Your task to perform on an android device: change notifications settings Image 0: 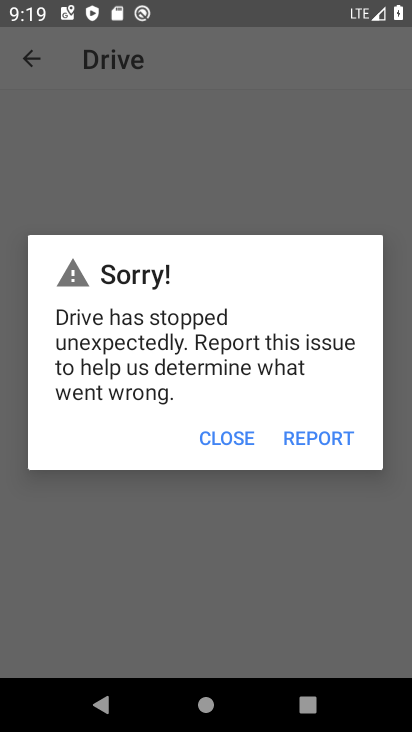
Step 0: press home button
Your task to perform on an android device: change notifications settings Image 1: 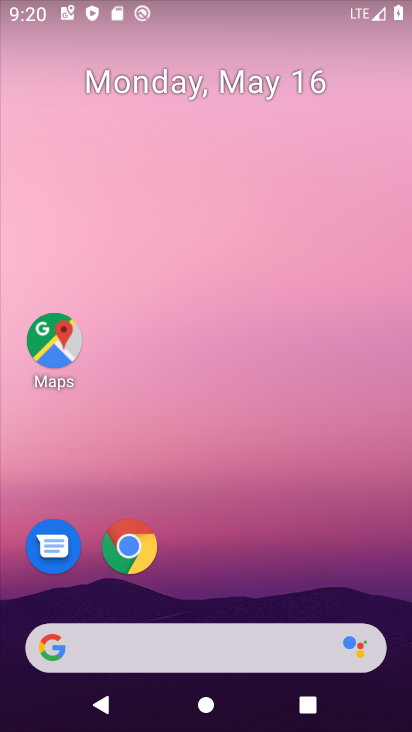
Step 1: drag from (270, 646) to (203, 96)
Your task to perform on an android device: change notifications settings Image 2: 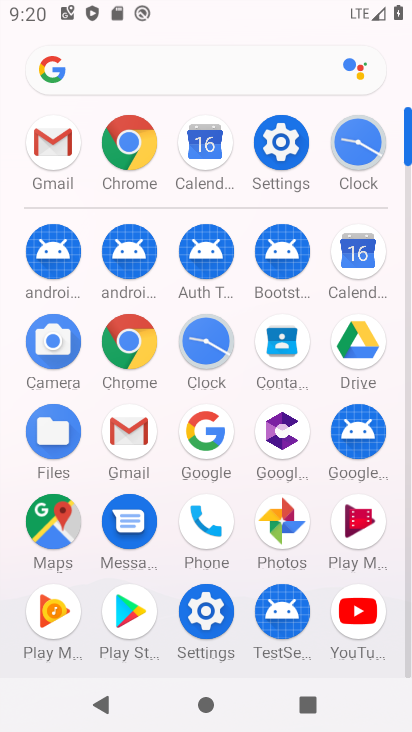
Step 2: click (292, 152)
Your task to perform on an android device: change notifications settings Image 3: 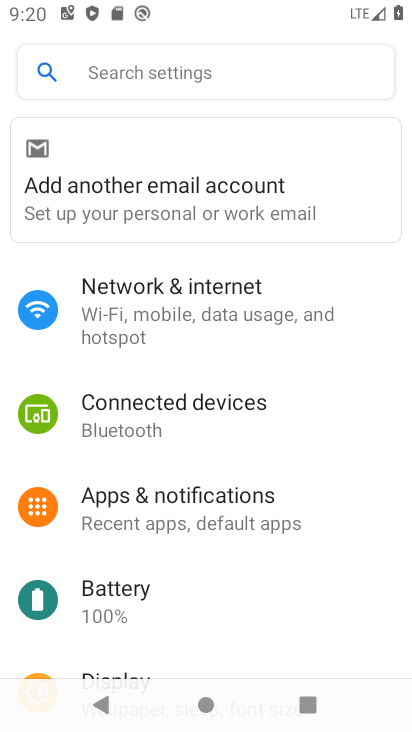
Step 3: click (195, 85)
Your task to perform on an android device: change notifications settings Image 4: 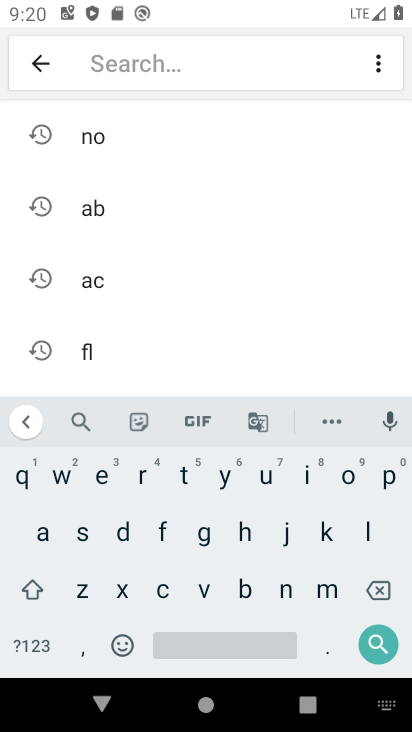
Step 4: click (144, 141)
Your task to perform on an android device: change notifications settings Image 5: 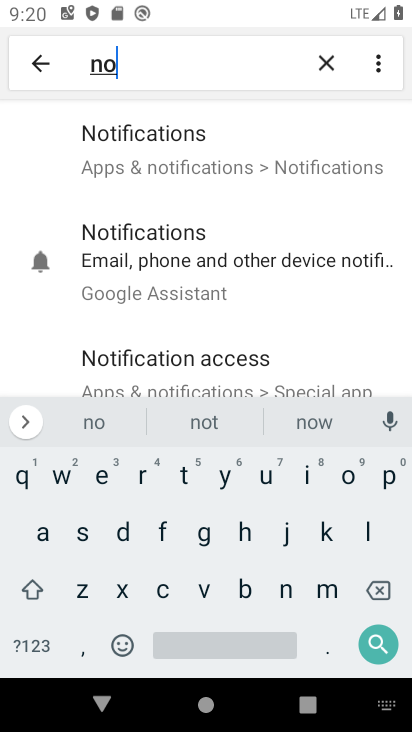
Step 5: click (147, 142)
Your task to perform on an android device: change notifications settings Image 6: 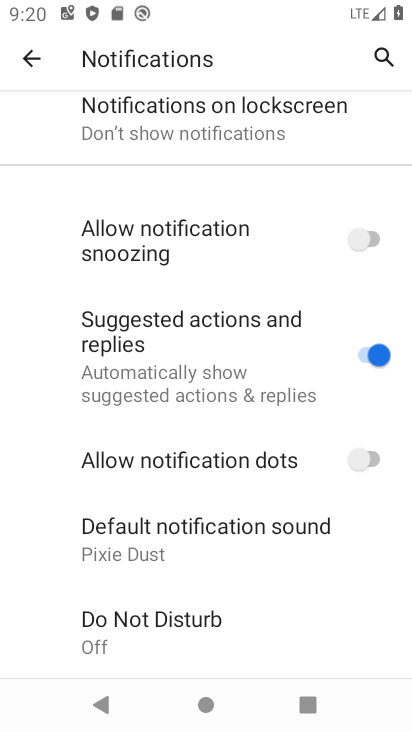
Step 6: click (174, 130)
Your task to perform on an android device: change notifications settings Image 7: 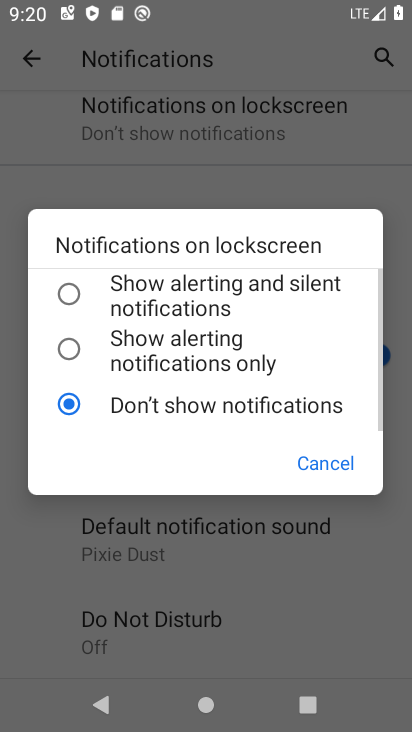
Step 7: click (175, 298)
Your task to perform on an android device: change notifications settings Image 8: 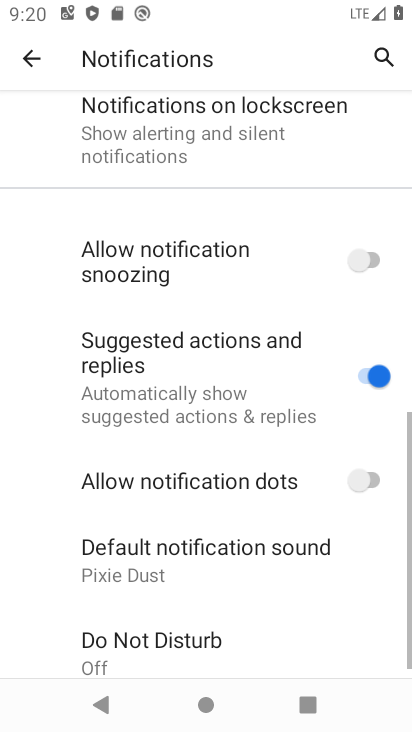
Step 8: task complete